Your task to perform on an android device: Is it going to rain tomorrow? Image 0: 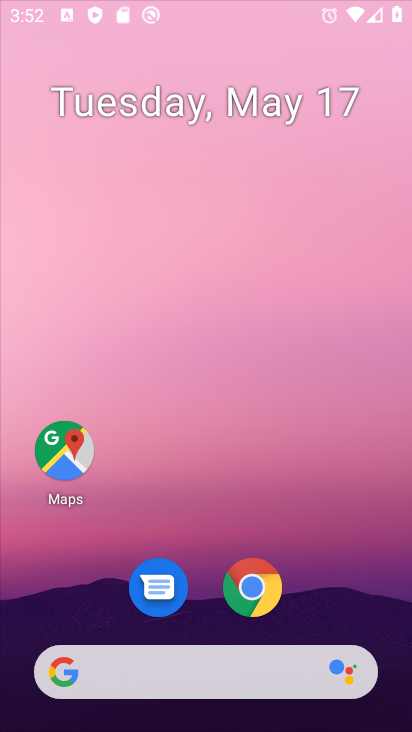
Step 0: click (243, 99)
Your task to perform on an android device: Is it going to rain tomorrow? Image 1: 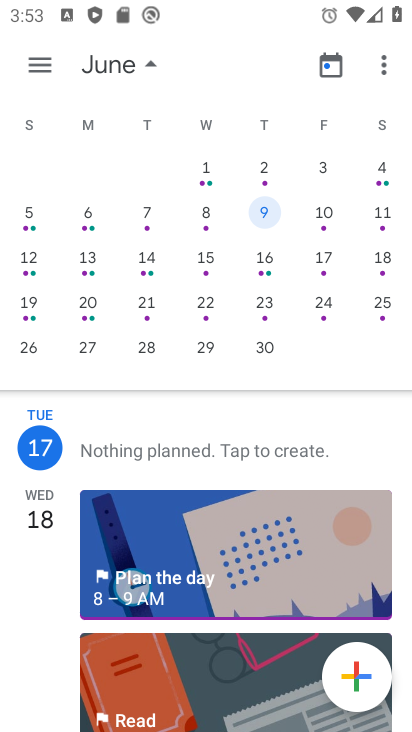
Step 1: drag from (207, 319) to (215, 123)
Your task to perform on an android device: Is it going to rain tomorrow? Image 2: 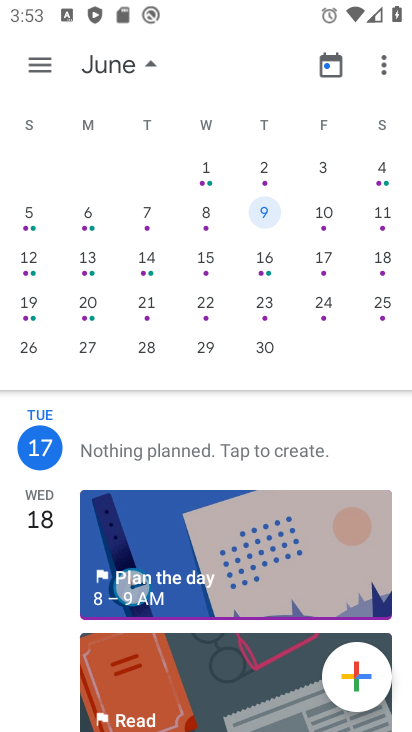
Step 2: press home button
Your task to perform on an android device: Is it going to rain tomorrow? Image 3: 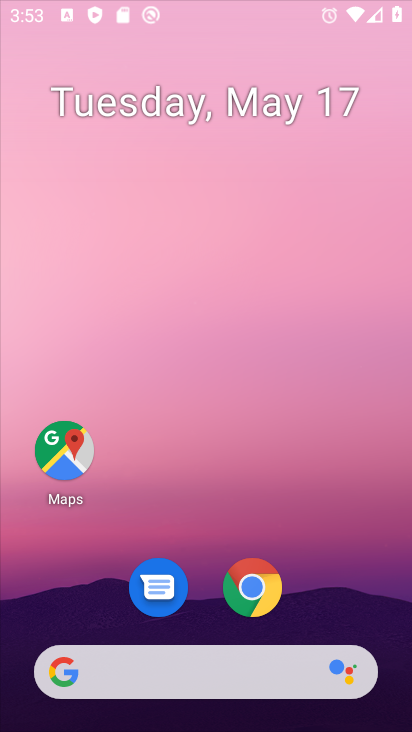
Step 3: drag from (182, 689) to (241, 196)
Your task to perform on an android device: Is it going to rain tomorrow? Image 4: 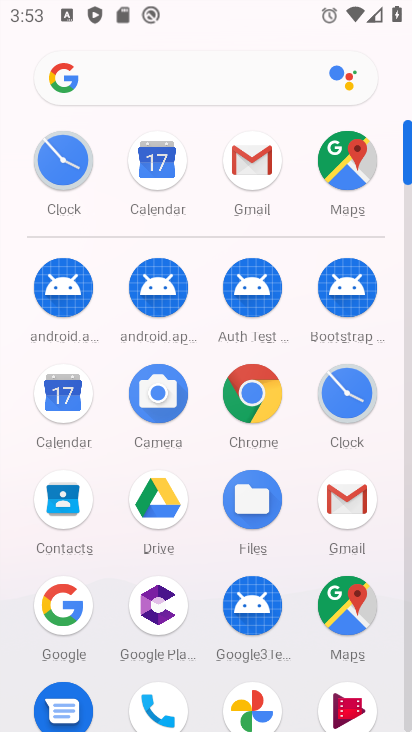
Step 4: click (140, 74)
Your task to perform on an android device: Is it going to rain tomorrow? Image 5: 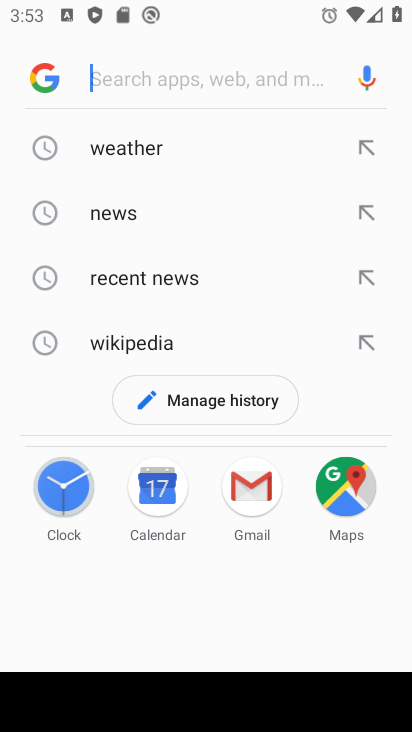
Step 5: type "rain tomorrow"
Your task to perform on an android device: Is it going to rain tomorrow? Image 6: 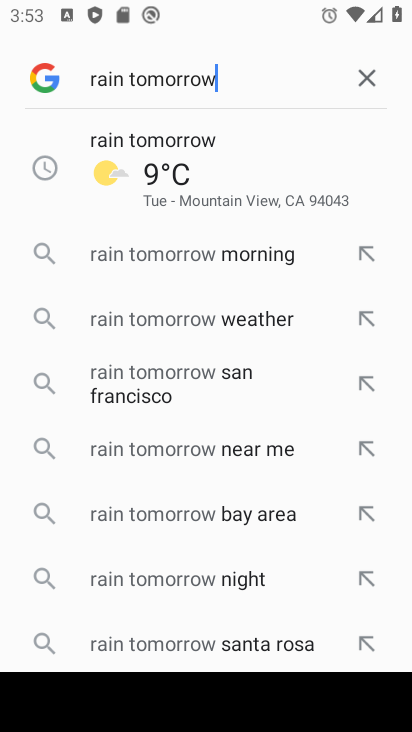
Step 6: click (147, 167)
Your task to perform on an android device: Is it going to rain tomorrow? Image 7: 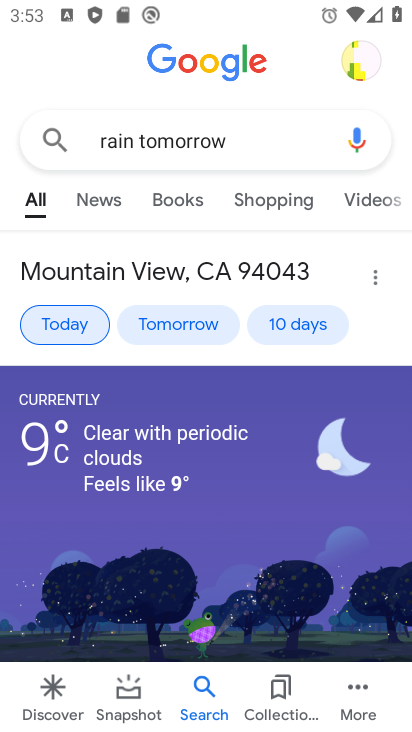
Step 7: task complete